Your task to perform on an android device: turn on translation in the chrome app Image 0: 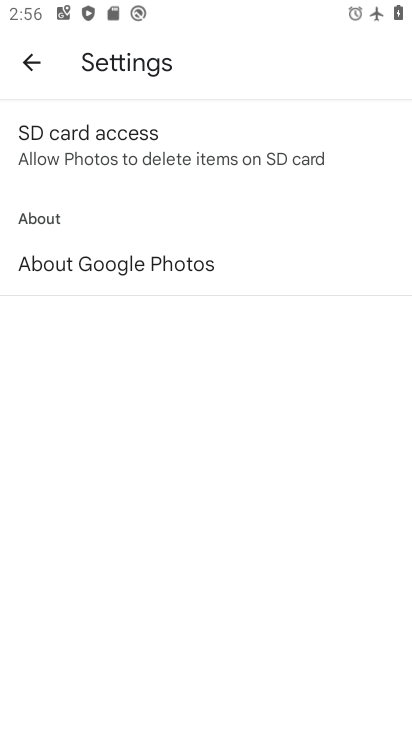
Step 0: press back button
Your task to perform on an android device: turn on translation in the chrome app Image 1: 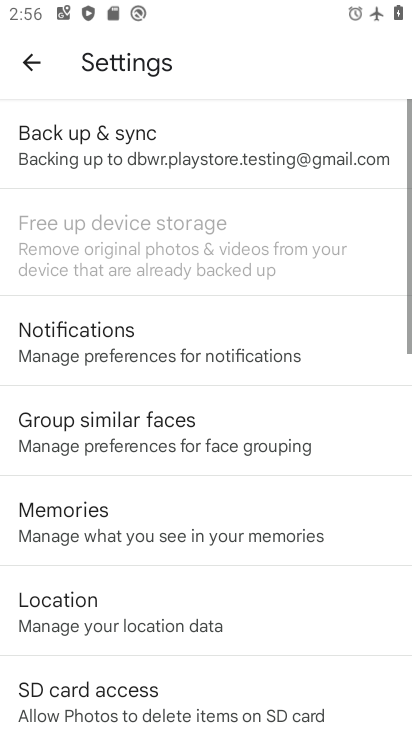
Step 1: press home button
Your task to perform on an android device: turn on translation in the chrome app Image 2: 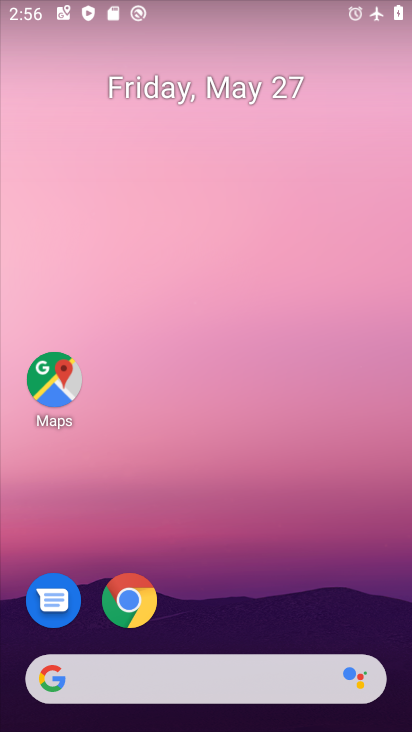
Step 2: drag from (268, 530) to (256, 6)
Your task to perform on an android device: turn on translation in the chrome app Image 3: 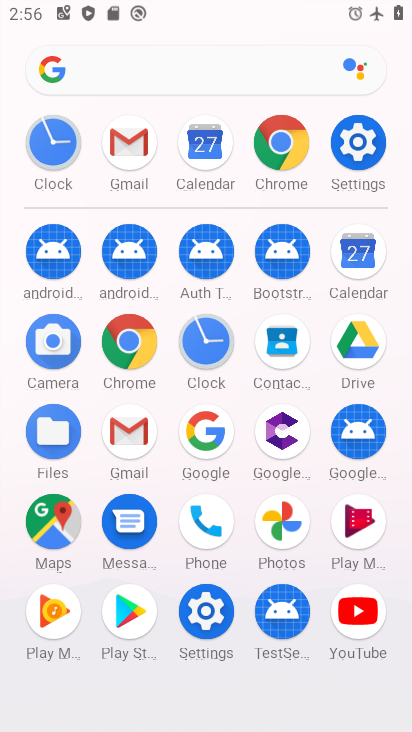
Step 3: drag from (5, 511) to (25, 244)
Your task to perform on an android device: turn on translation in the chrome app Image 4: 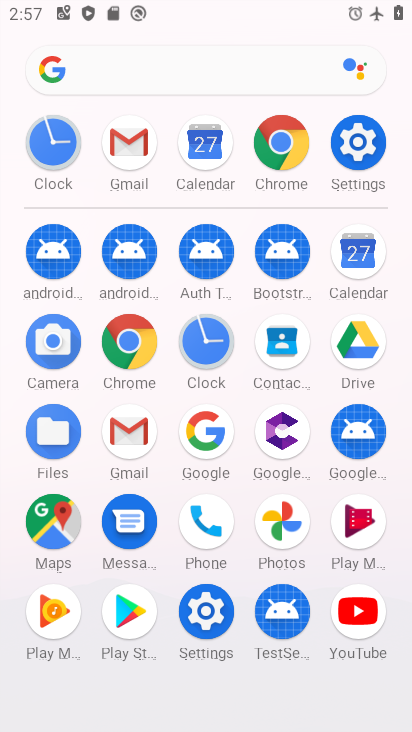
Step 4: click (131, 338)
Your task to perform on an android device: turn on translation in the chrome app Image 5: 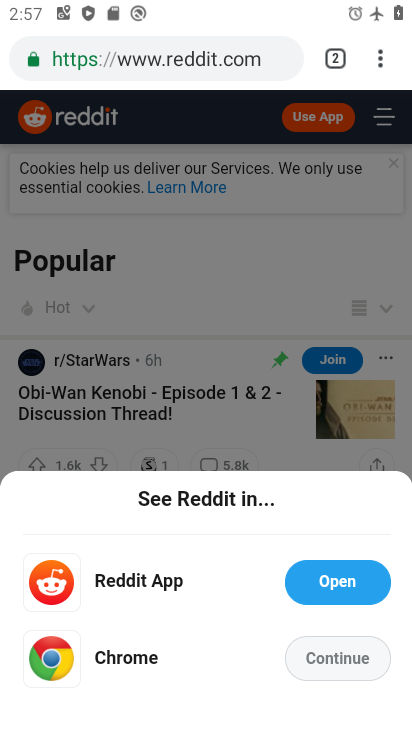
Step 5: drag from (377, 47) to (179, 644)
Your task to perform on an android device: turn on translation in the chrome app Image 6: 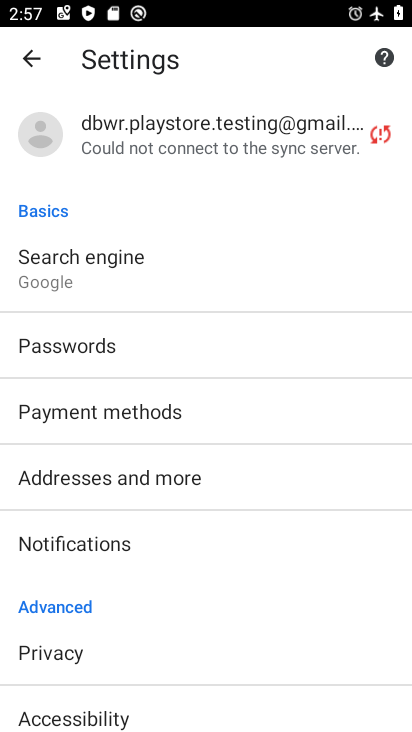
Step 6: drag from (185, 592) to (233, 214)
Your task to perform on an android device: turn on translation in the chrome app Image 7: 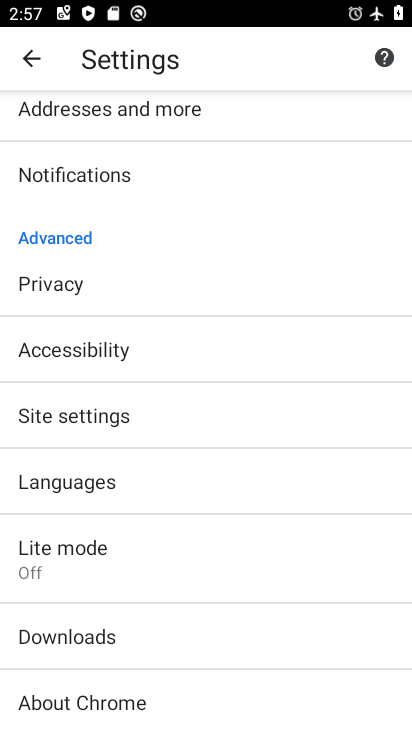
Step 7: click (117, 482)
Your task to perform on an android device: turn on translation in the chrome app Image 8: 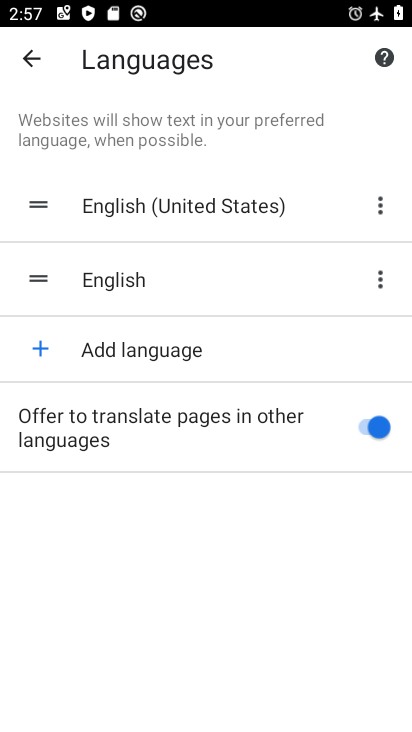
Step 8: task complete